Your task to perform on an android device: toggle data saver in the chrome app Image 0: 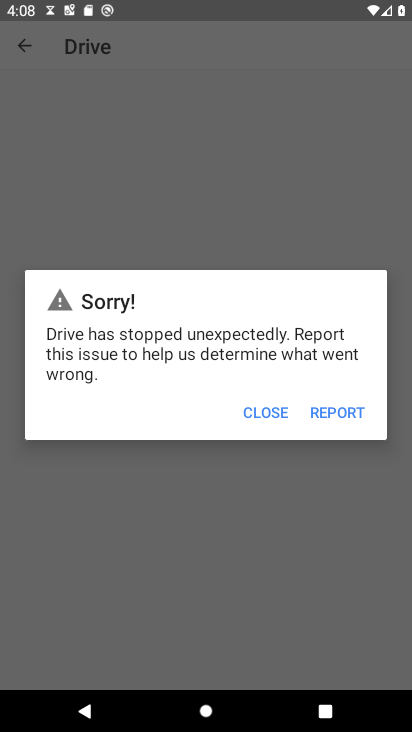
Step 0: press home button
Your task to perform on an android device: toggle data saver in the chrome app Image 1: 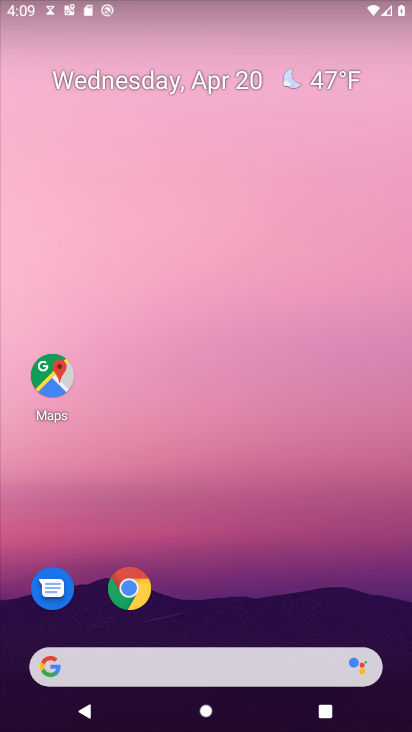
Step 1: click (134, 590)
Your task to perform on an android device: toggle data saver in the chrome app Image 2: 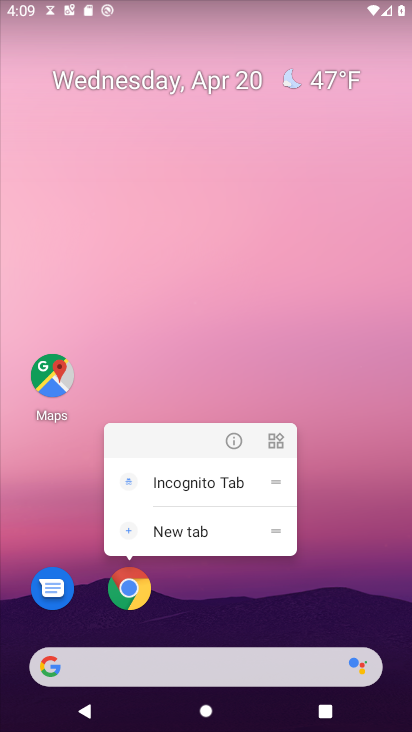
Step 2: click (134, 584)
Your task to perform on an android device: toggle data saver in the chrome app Image 3: 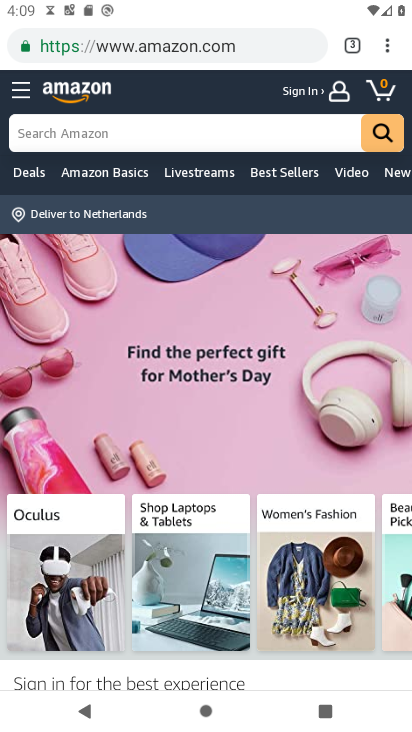
Step 3: click (389, 44)
Your task to perform on an android device: toggle data saver in the chrome app Image 4: 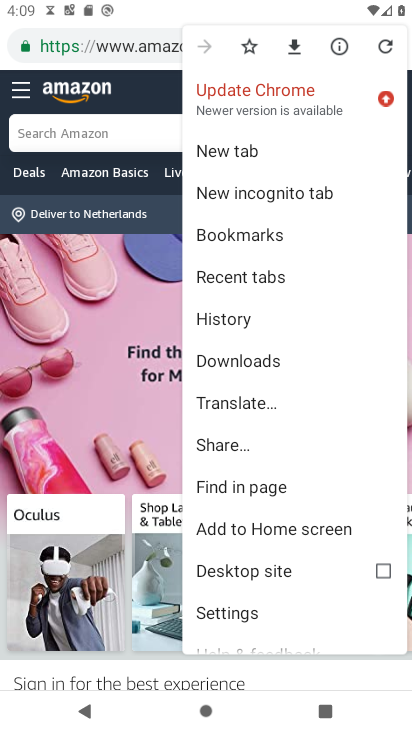
Step 4: click (241, 607)
Your task to perform on an android device: toggle data saver in the chrome app Image 5: 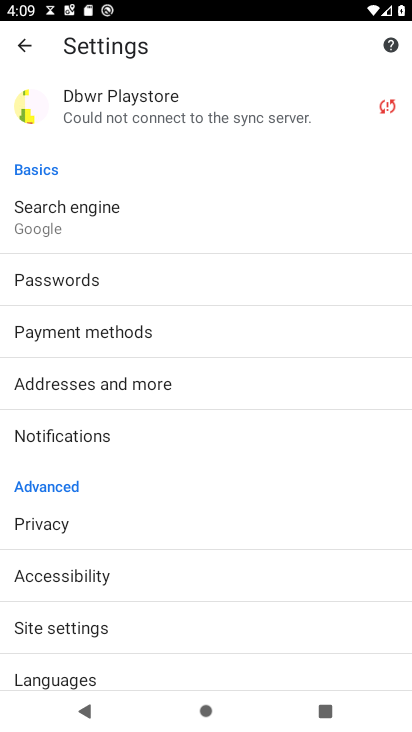
Step 5: drag from (164, 609) to (225, 422)
Your task to perform on an android device: toggle data saver in the chrome app Image 6: 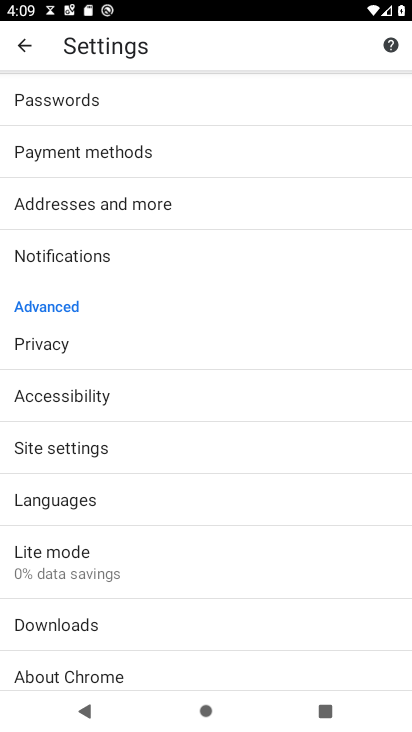
Step 6: click (125, 553)
Your task to perform on an android device: toggle data saver in the chrome app Image 7: 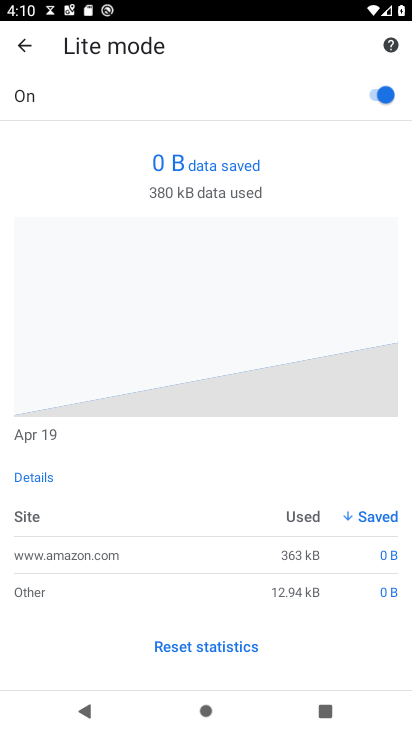
Step 7: click (386, 89)
Your task to perform on an android device: toggle data saver in the chrome app Image 8: 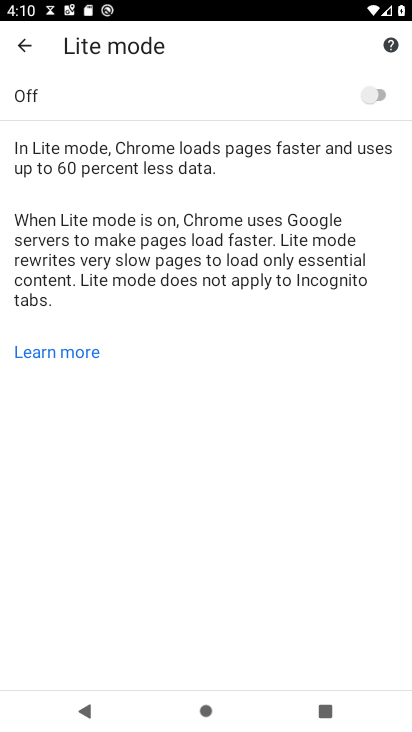
Step 8: task complete